Your task to perform on an android device: turn on wifi Image 0: 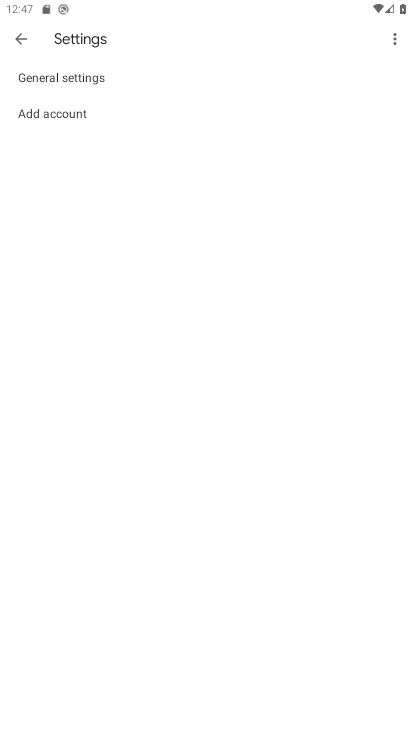
Step 0: task impossible